Your task to perform on an android device: open app "Flipkart Online Shopping App" Image 0: 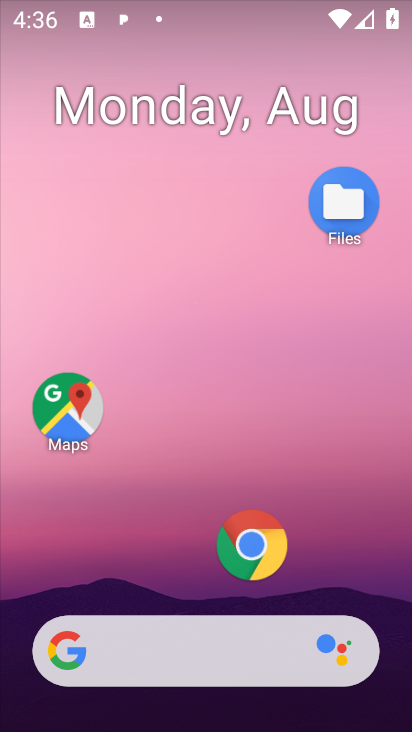
Step 0: drag from (183, 582) to (258, 25)
Your task to perform on an android device: open app "Flipkart Online Shopping App" Image 1: 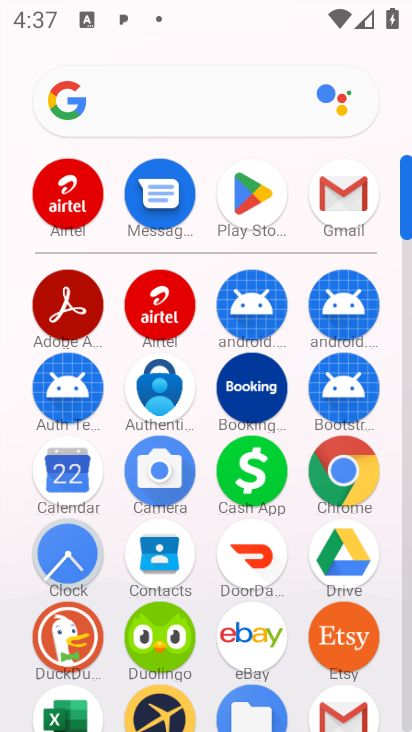
Step 1: click (258, 195)
Your task to perform on an android device: open app "Flipkart Online Shopping App" Image 2: 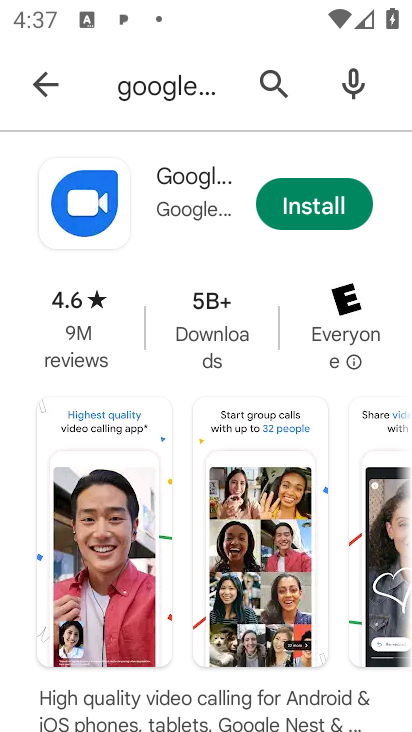
Step 2: click (279, 63)
Your task to perform on an android device: open app "Flipkart Online Shopping App" Image 3: 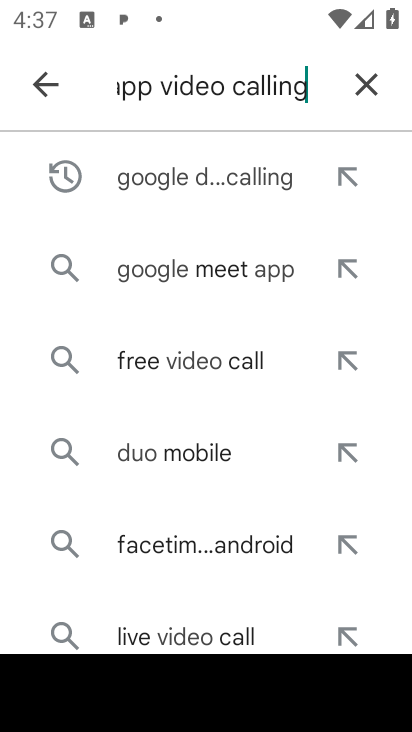
Step 3: click (381, 70)
Your task to perform on an android device: open app "Flipkart Online Shopping App" Image 4: 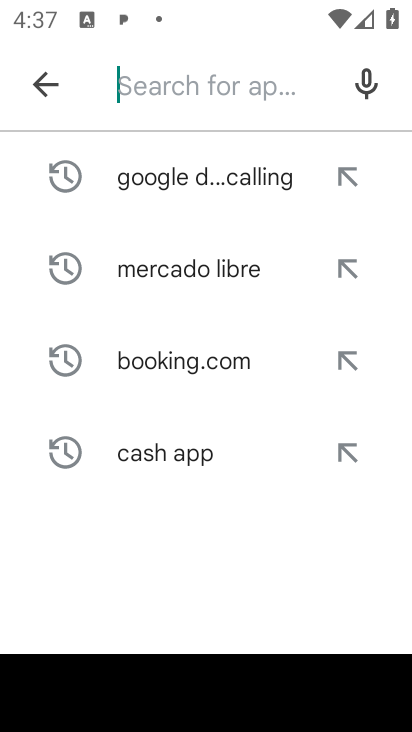
Step 4: click (153, 84)
Your task to perform on an android device: open app "Flipkart Online Shopping App" Image 5: 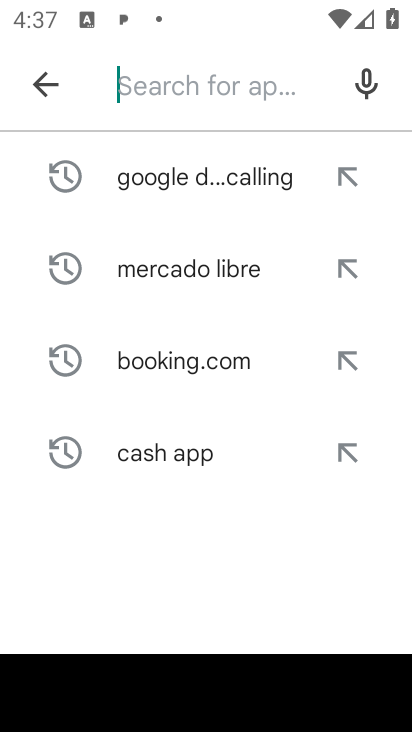
Step 5: type "flipkart online"
Your task to perform on an android device: open app "Flipkart Online Shopping App" Image 6: 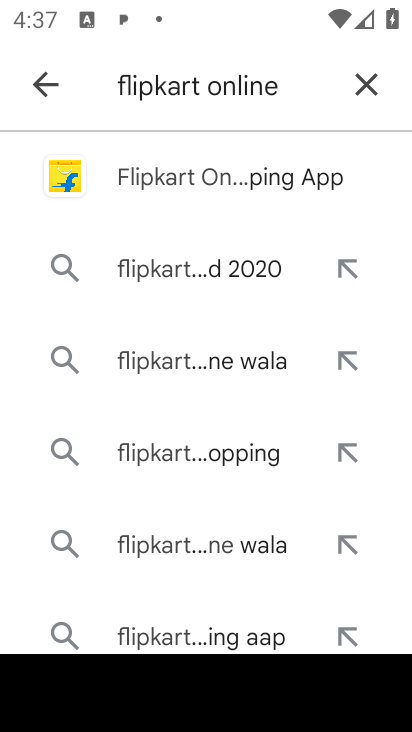
Step 6: click (232, 171)
Your task to perform on an android device: open app "Flipkart Online Shopping App" Image 7: 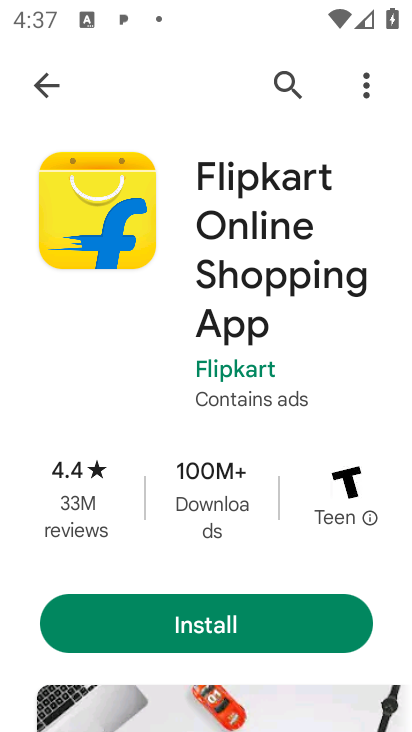
Step 7: task complete